Your task to perform on an android device: turn off notifications in google photos Image 0: 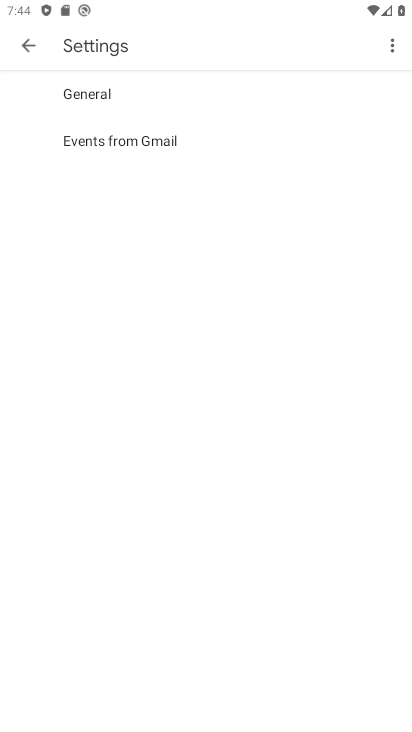
Step 0: press home button
Your task to perform on an android device: turn off notifications in google photos Image 1: 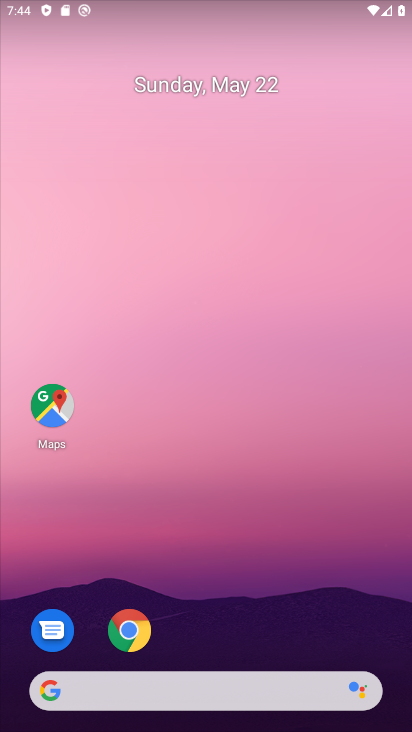
Step 1: drag from (250, 637) to (263, 14)
Your task to perform on an android device: turn off notifications in google photos Image 2: 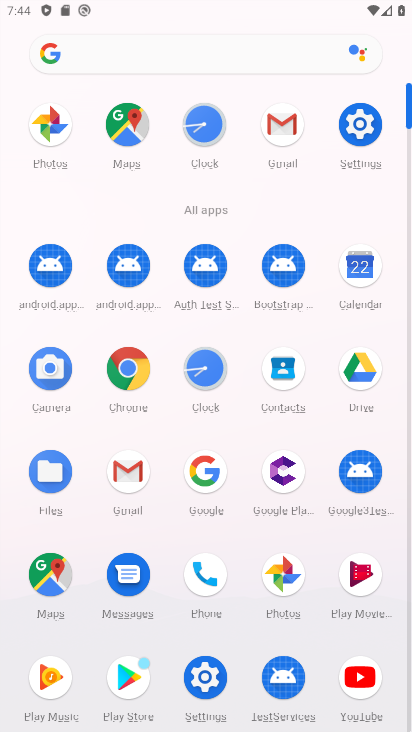
Step 2: click (57, 122)
Your task to perform on an android device: turn off notifications in google photos Image 3: 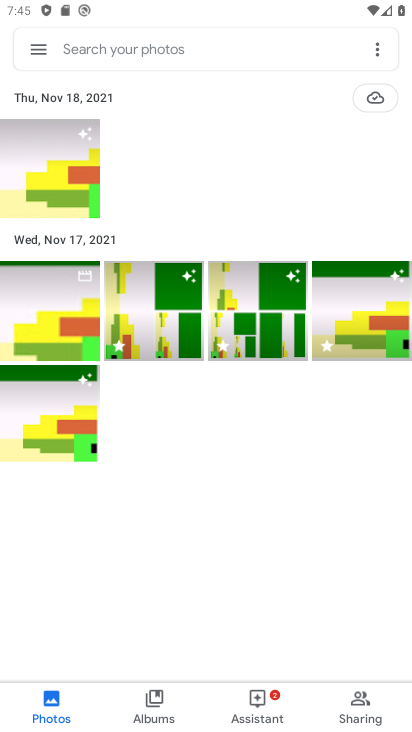
Step 3: click (44, 58)
Your task to perform on an android device: turn off notifications in google photos Image 4: 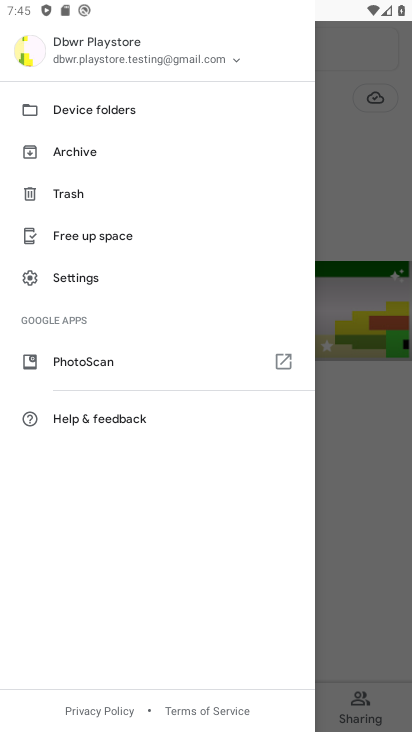
Step 4: click (106, 281)
Your task to perform on an android device: turn off notifications in google photos Image 5: 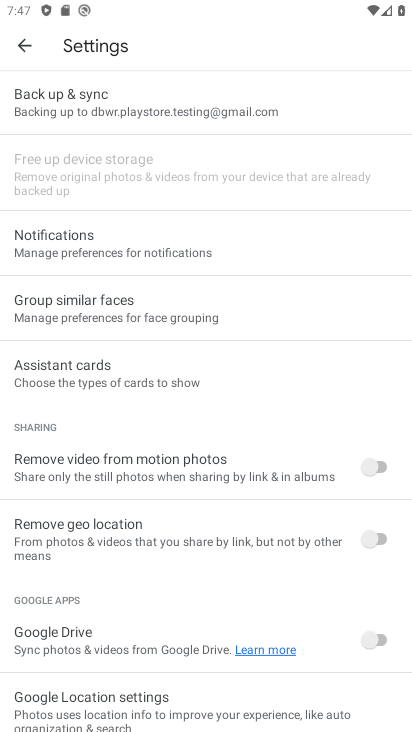
Step 5: task complete